Your task to perform on an android device: Clear the cart on target.com. Add "razer blade" to the cart on target.com, then select checkout. Image 0: 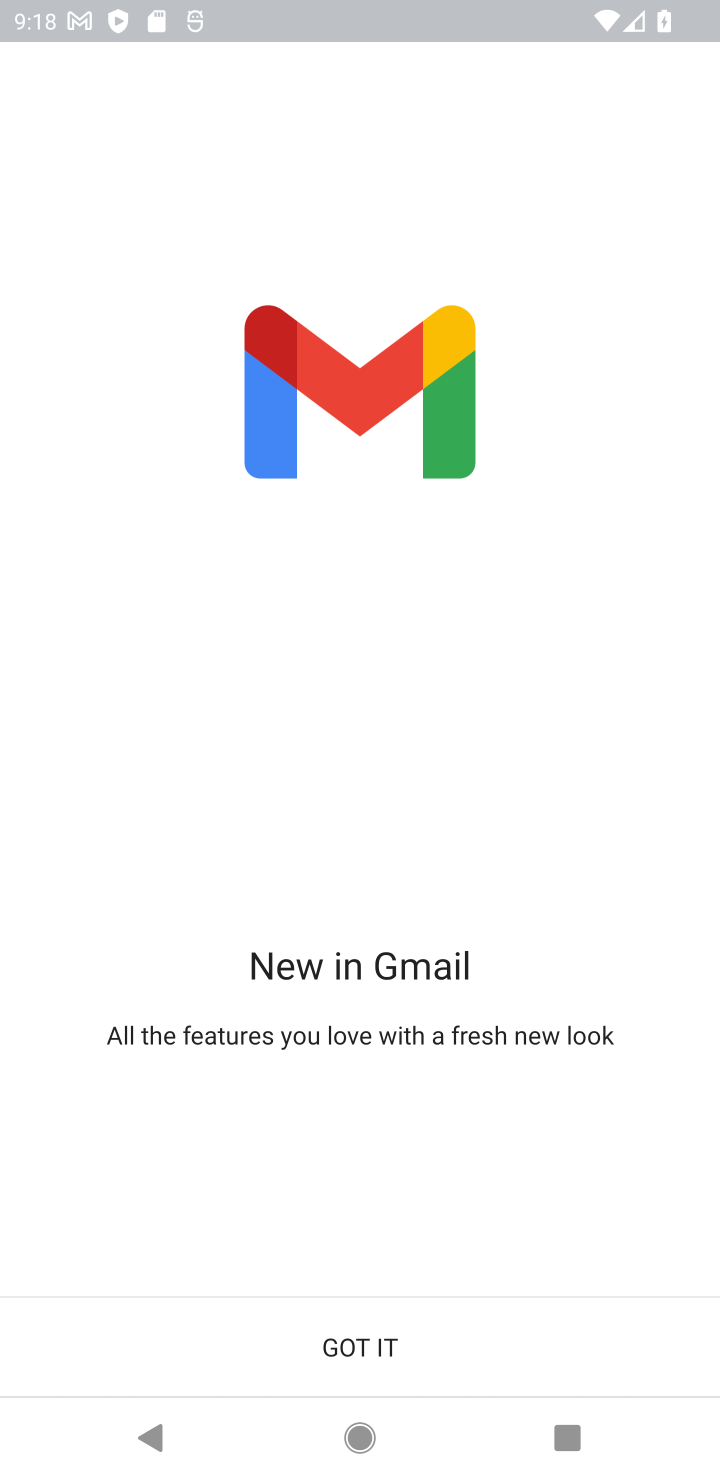
Step 0: press home button
Your task to perform on an android device: Clear the cart on target.com. Add "razer blade" to the cart on target.com, then select checkout. Image 1: 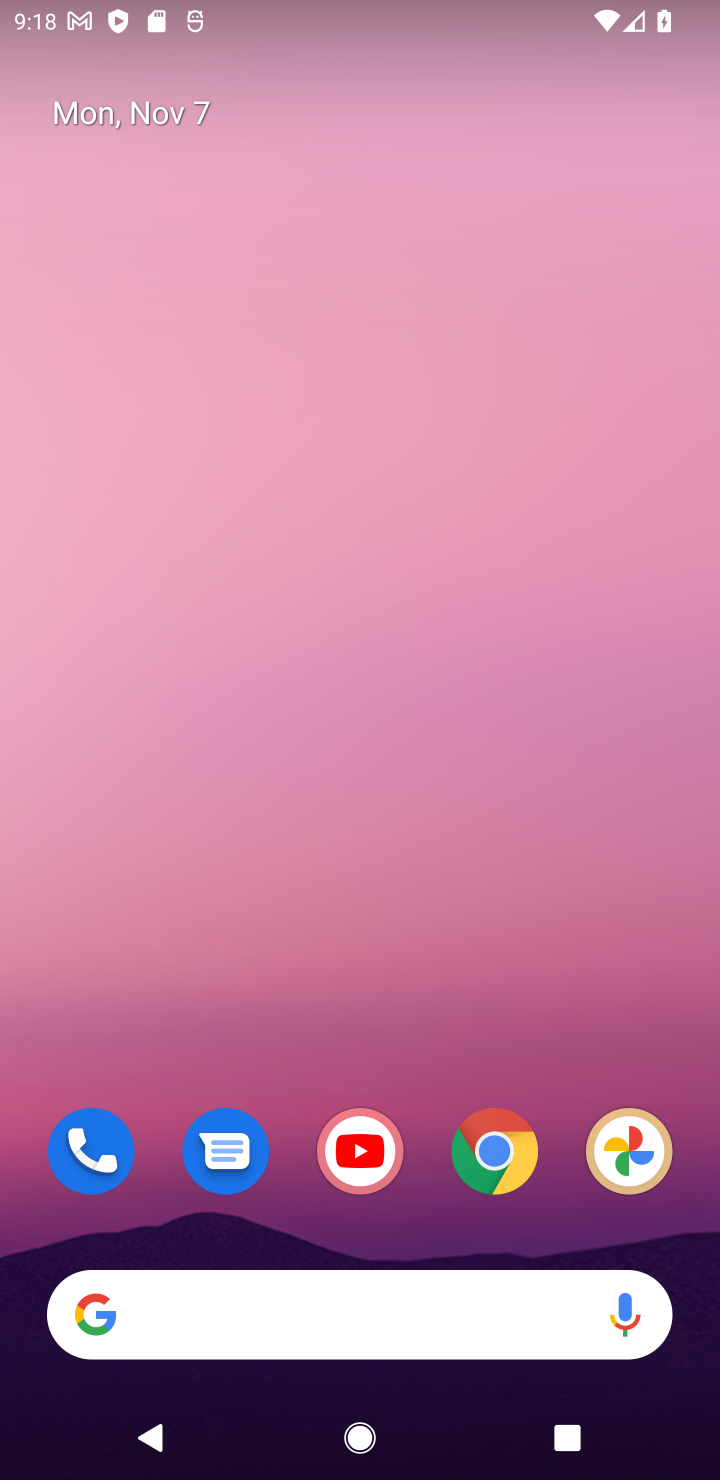
Step 1: click (497, 1158)
Your task to perform on an android device: Clear the cart on target.com. Add "razer blade" to the cart on target.com, then select checkout. Image 2: 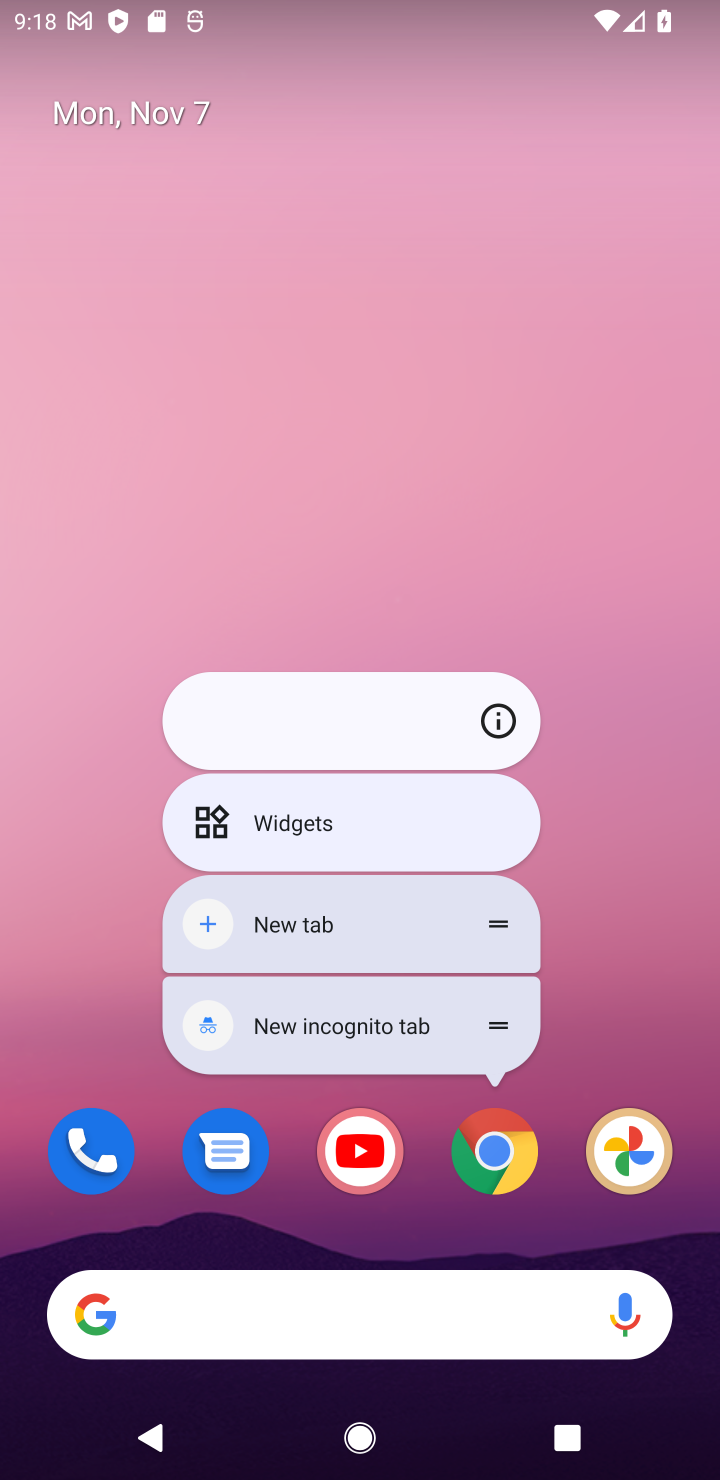
Step 2: click (499, 1154)
Your task to perform on an android device: Clear the cart on target.com. Add "razer blade" to the cart on target.com, then select checkout. Image 3: 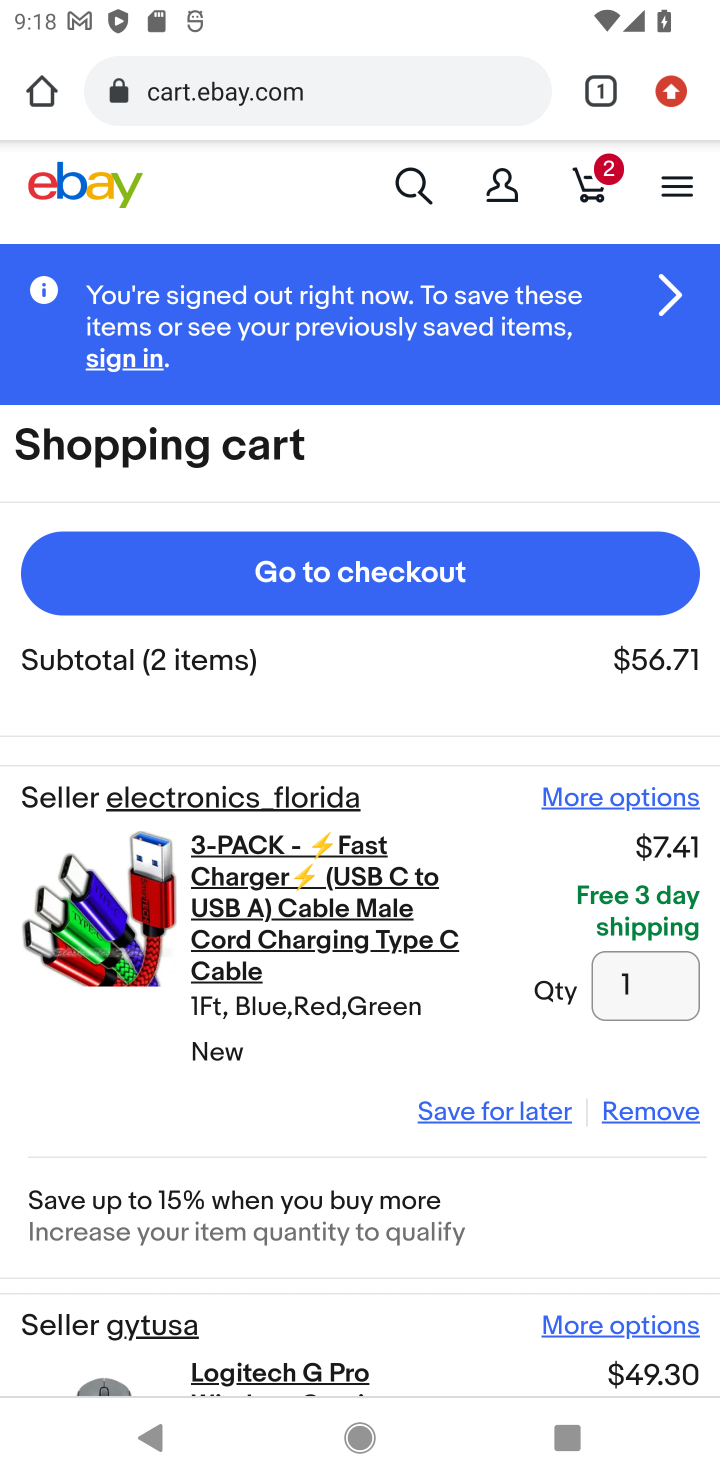
Step 3: click (363, 84)
Your task to perform on an android device: Clear the cart on target.com. Add "razer blade" to the cart on target.com, then select checkout. Image 4: 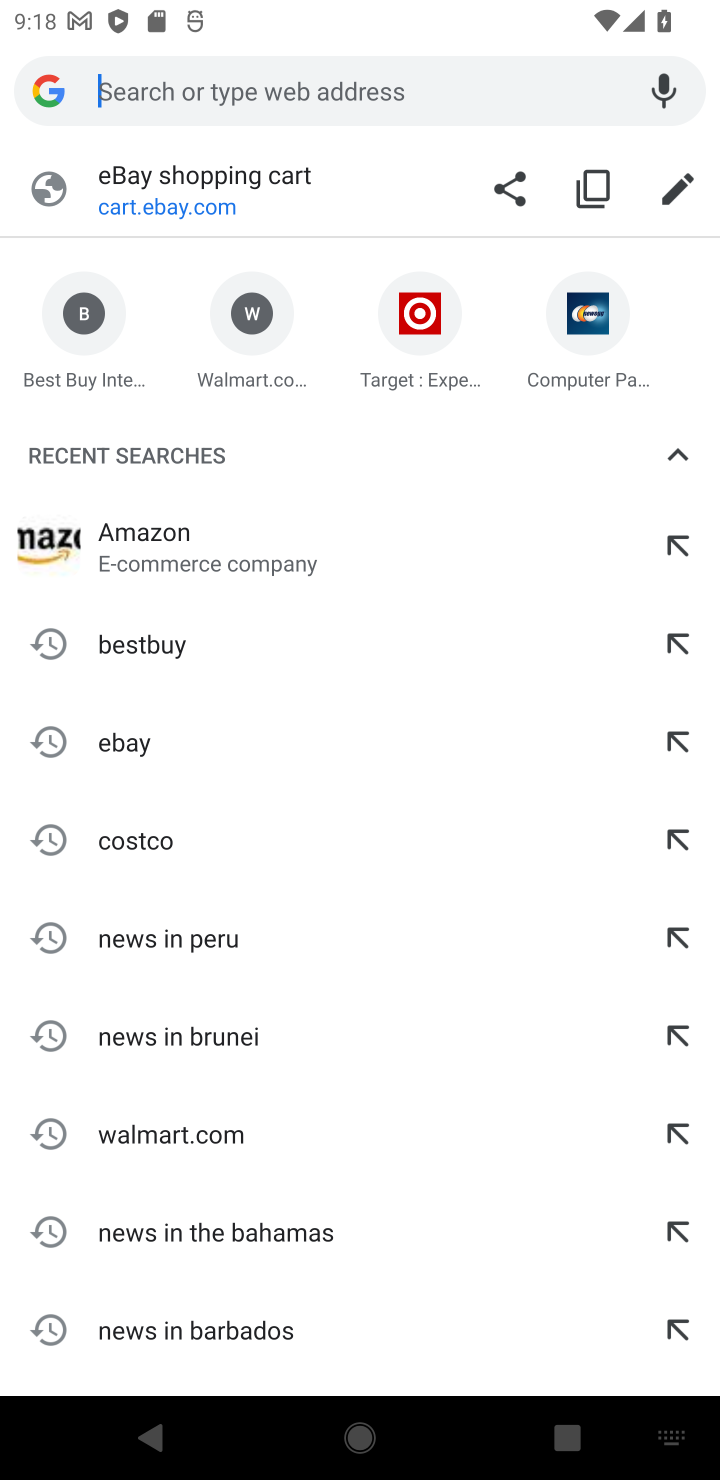
Step 4: click (411, 303)
Your task to perform on an android device: Clear the cart on target.com. Add "razer blade" to the cart on target.com, then select checkout. Image 5: 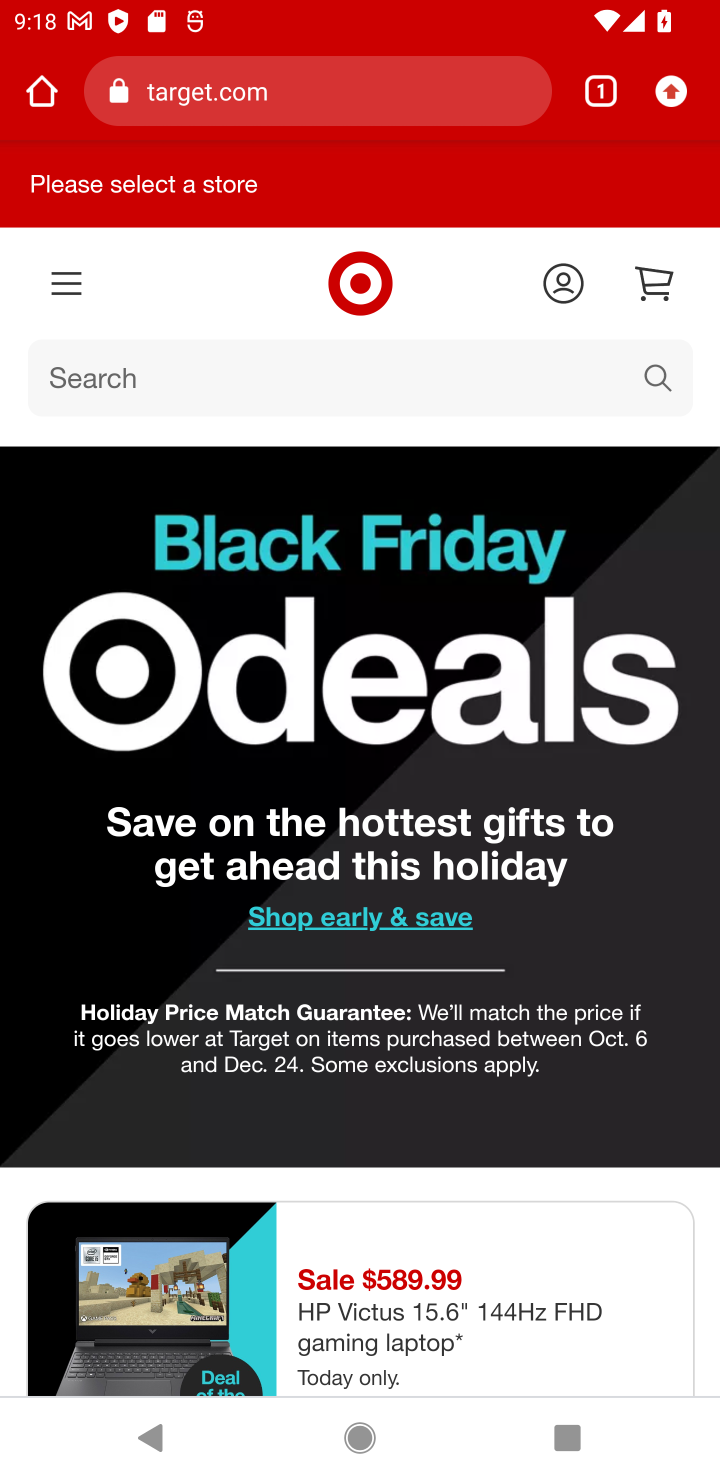
Step 5: click (65, 371)
Your task to perform on an android device: Clear the cart on target.com. Add "razer blade" to the cart on target.com, then select checkout. Image 6: 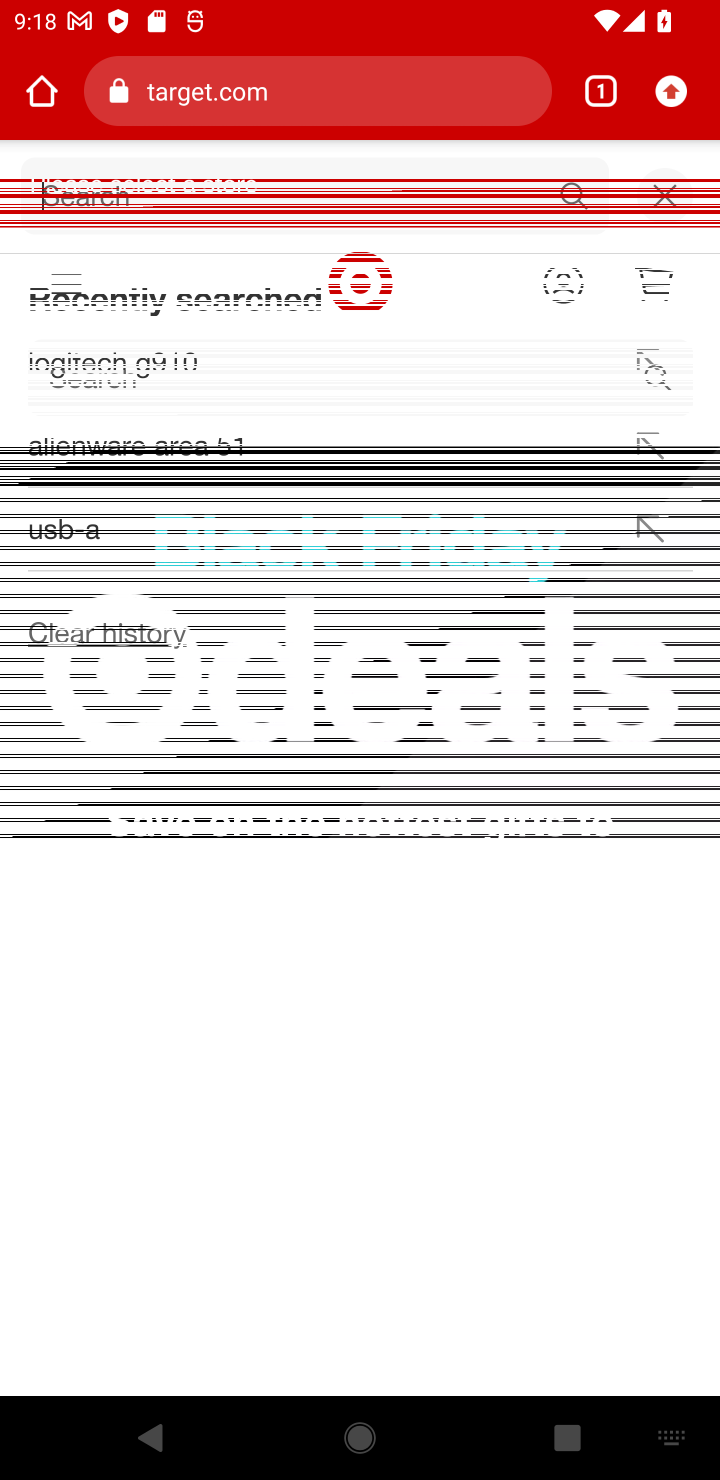
Step 6: click (49, 192)
Your task to perform on an android device: Clear the cart on target.com. Add "razer blade" to the cart on target.com, then select checkout. Image 7: 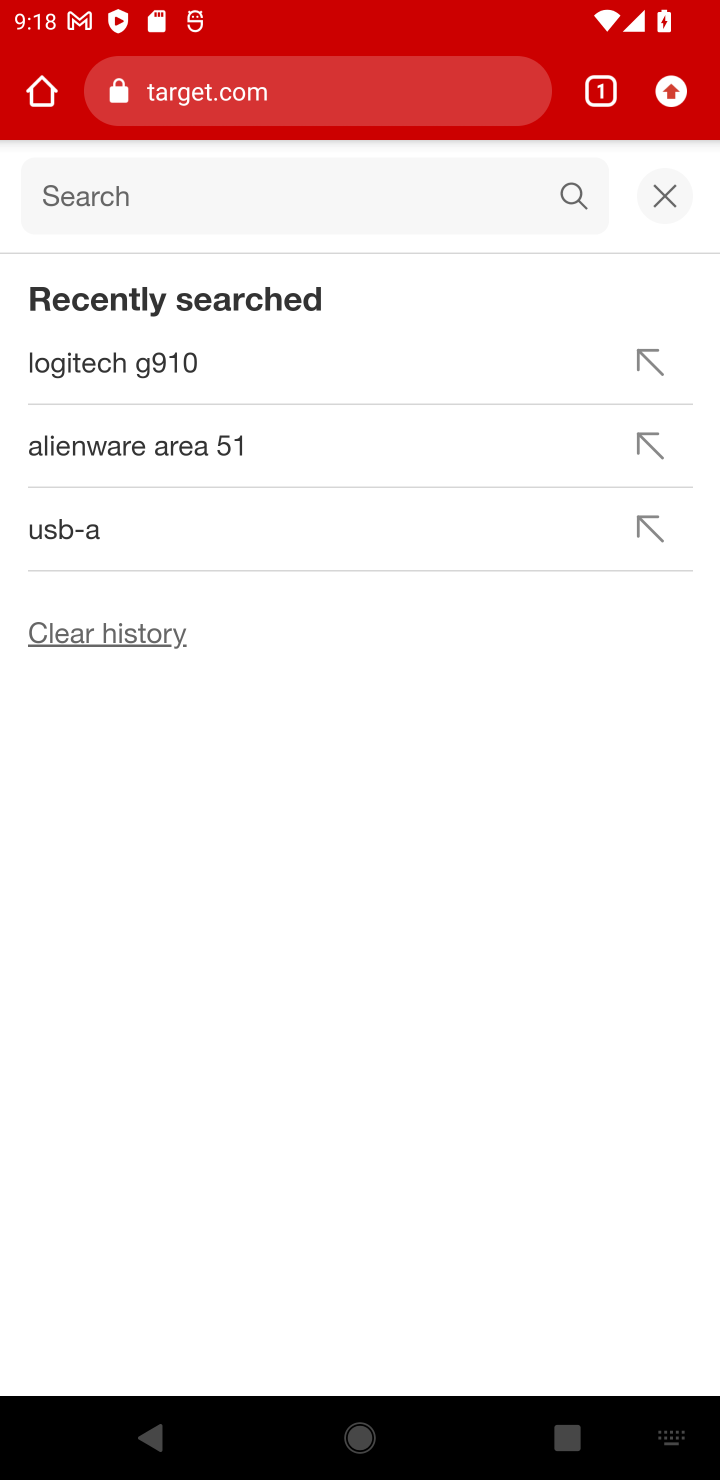
Step 7: type "razer blade"
Your task to perform on an android device: Clear the cart on target.com. Add "razer blade" to the cart on target.com, then select checkout. Image 8: 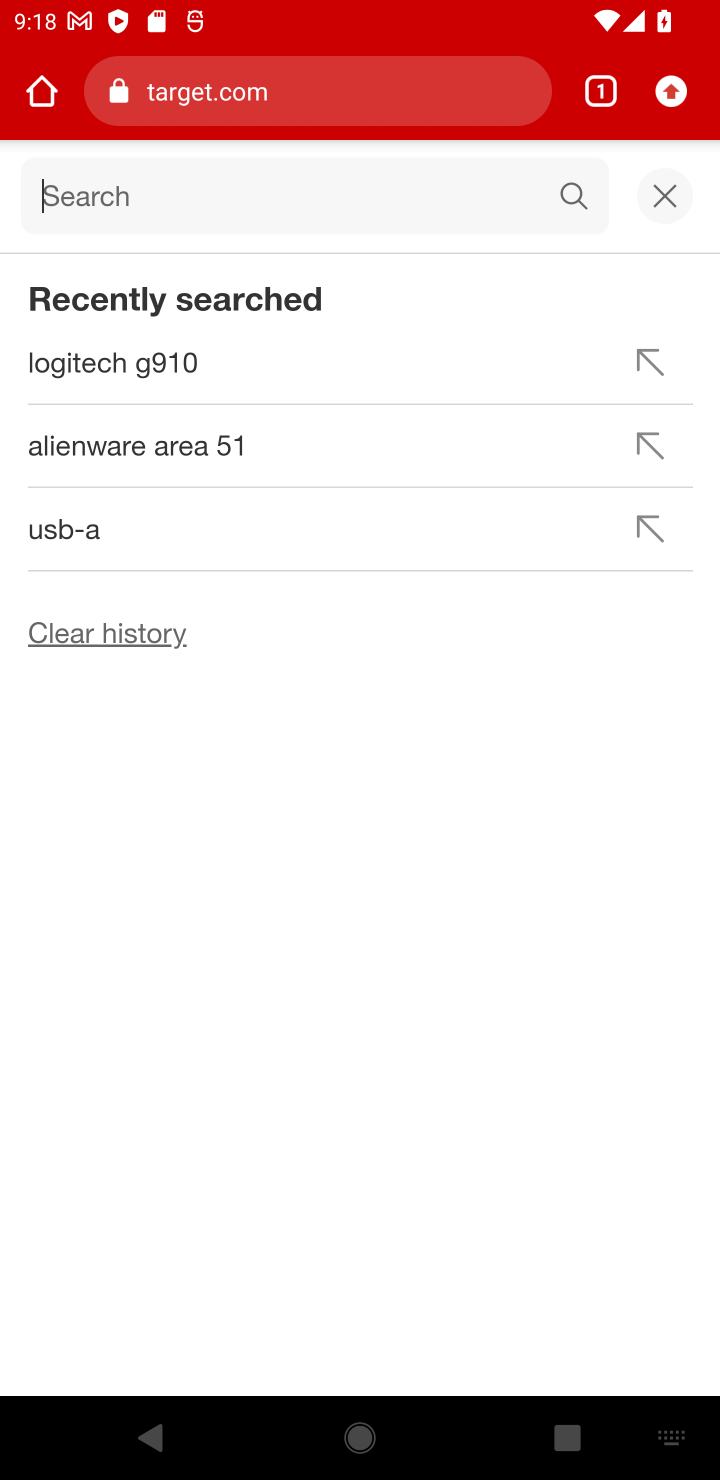
Step 8: press enter
Your task to perform on an android device: Clear the cart on target.com. Add "razer blade" to the cart on target.com, then select checkout. Image 9: 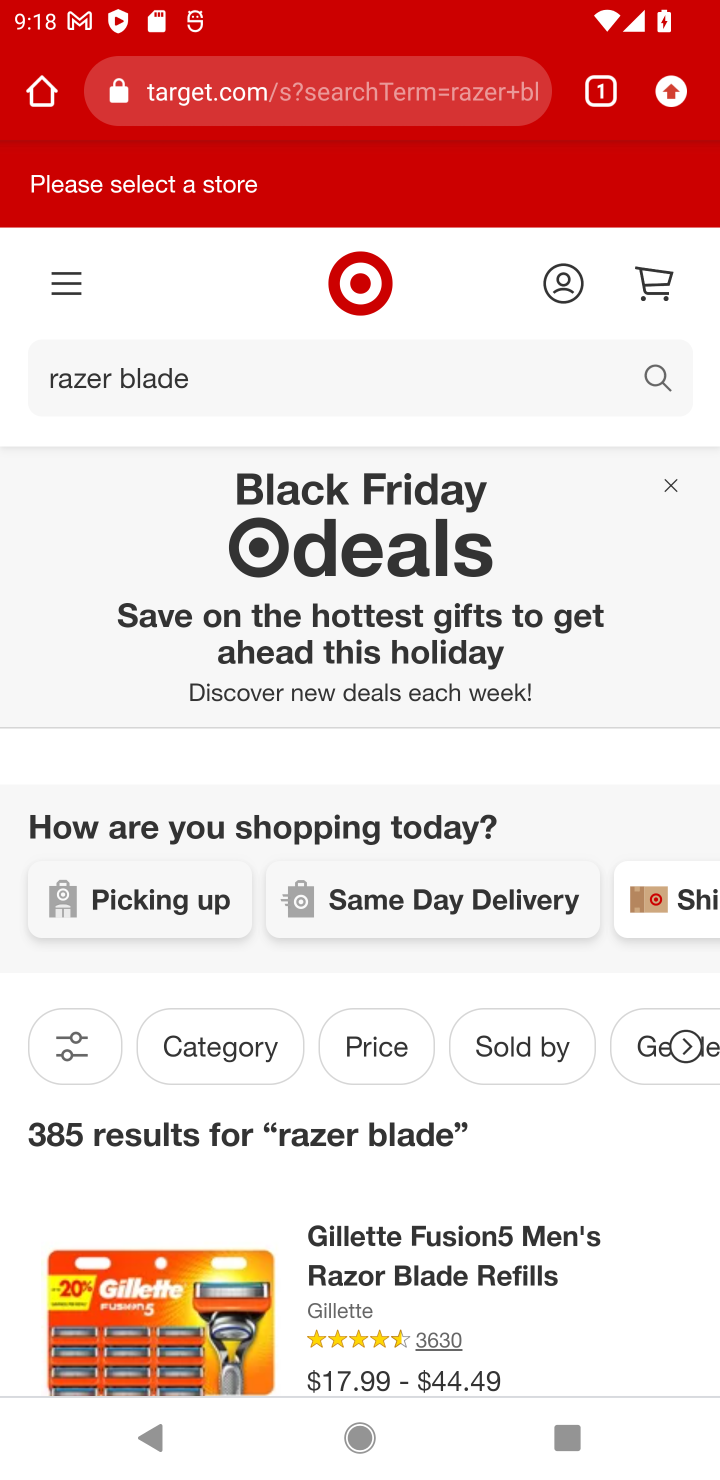
Step 9: drag from (203, 1218) to (375, 732)
Your task to perform on an android device: Clear the cart on target.com. Add "razer blade" to the cart on target.com, then select checkout. Image 10: 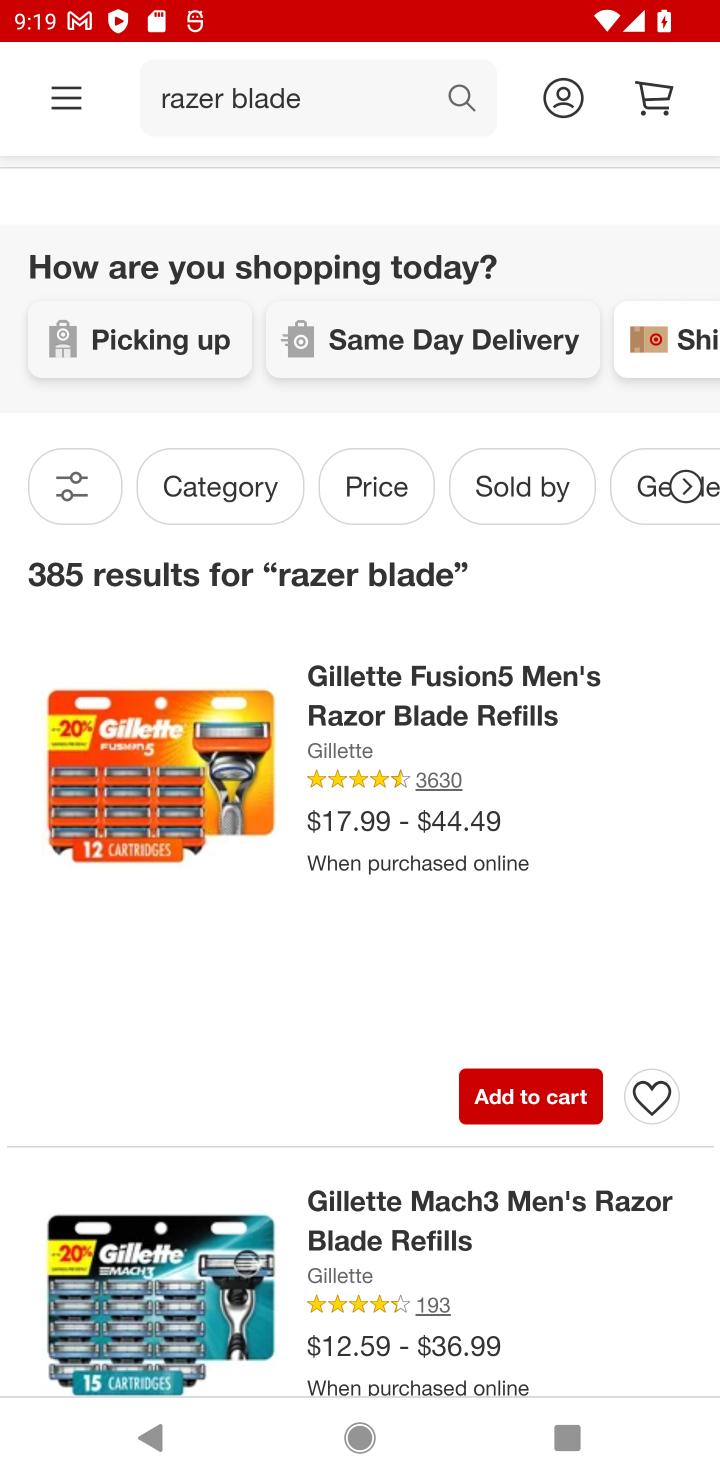
Step 10: click (546, 1094)
Your task to perform on an android device: Clear the cart on target.com. Add "razer blade" to the cart on target.com, then select checkout. Image 11: 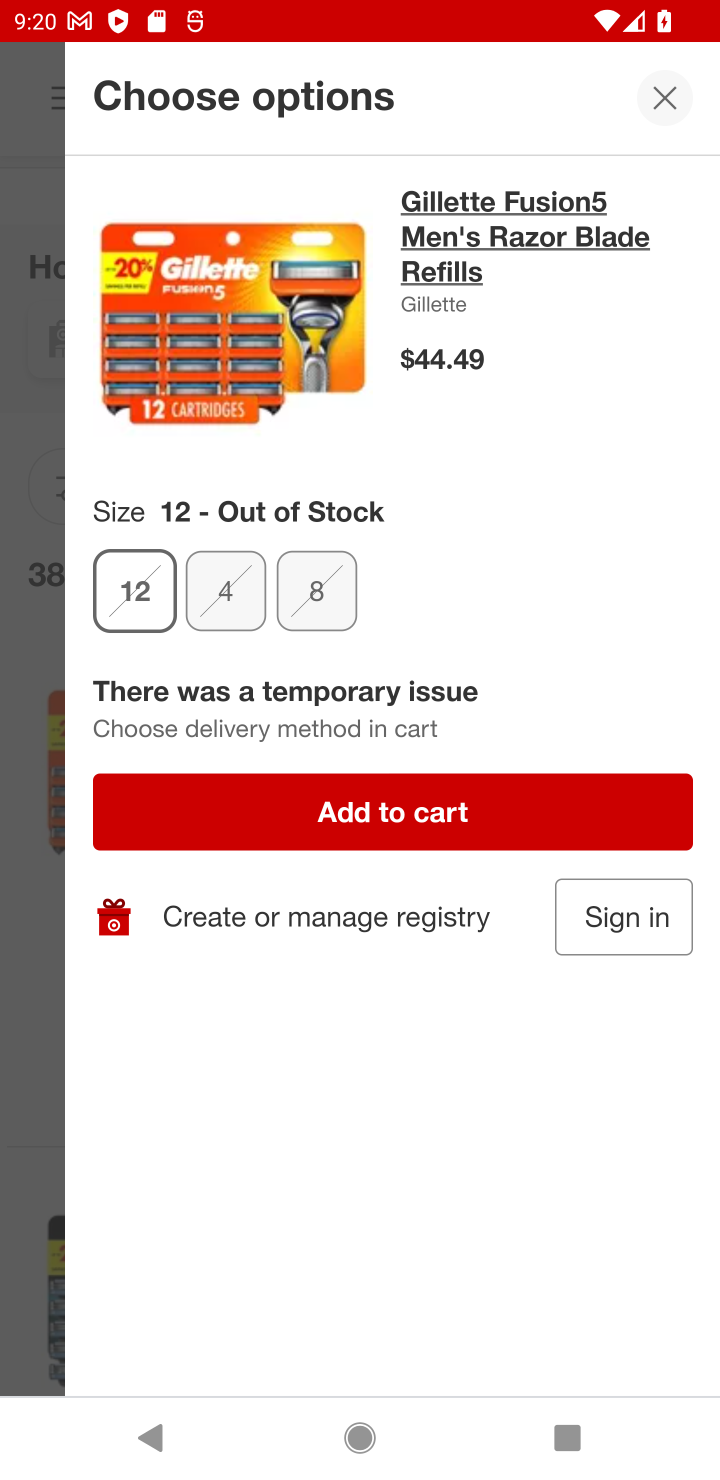
Step 11: click (416, 818)
Your task to perform on an android device: Clear the cart on target.com. Add "razer blade" to the cart on target.com, then select checkout. Image 12: 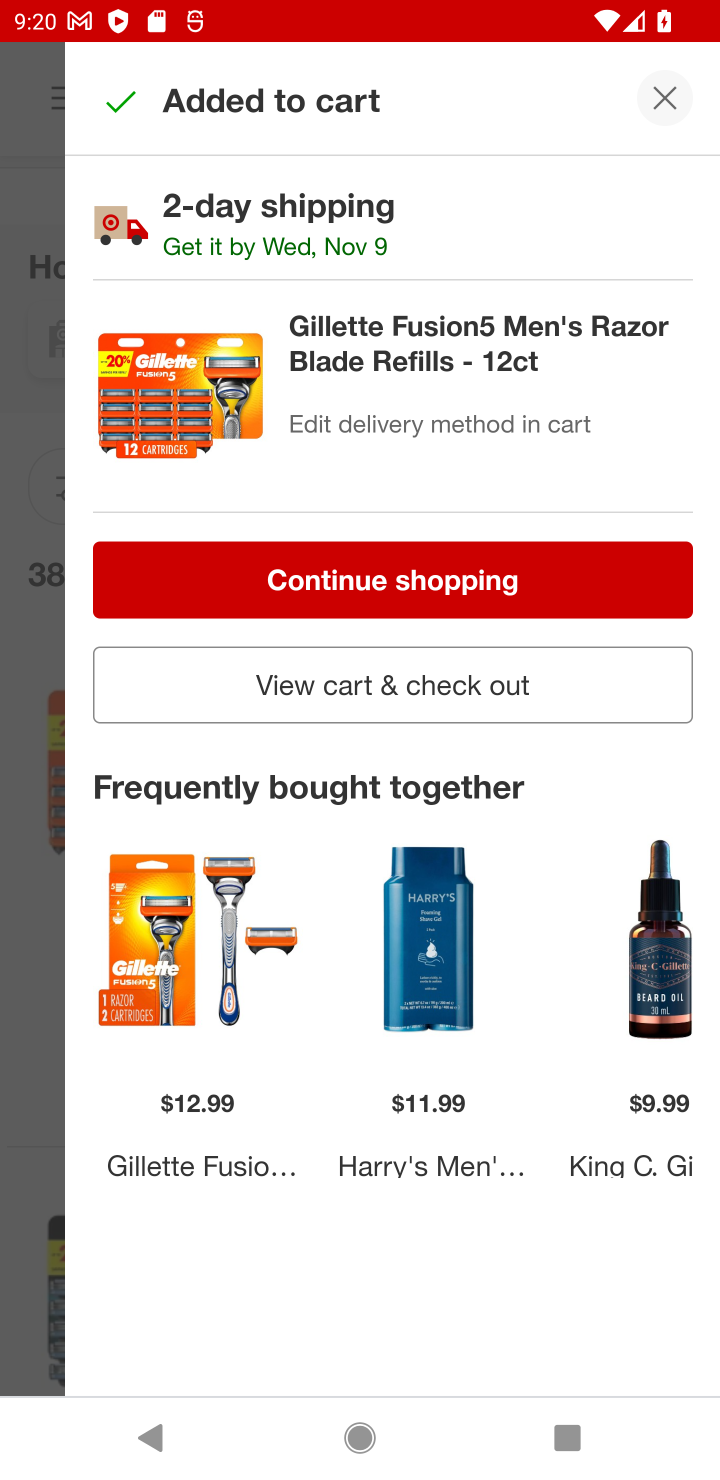
Step 12: click (668, 89)
Your task to perform on an android device: Clear the cart on target.com. Add "razer blade" to the cart on target.com, then select checkout. Image 13: 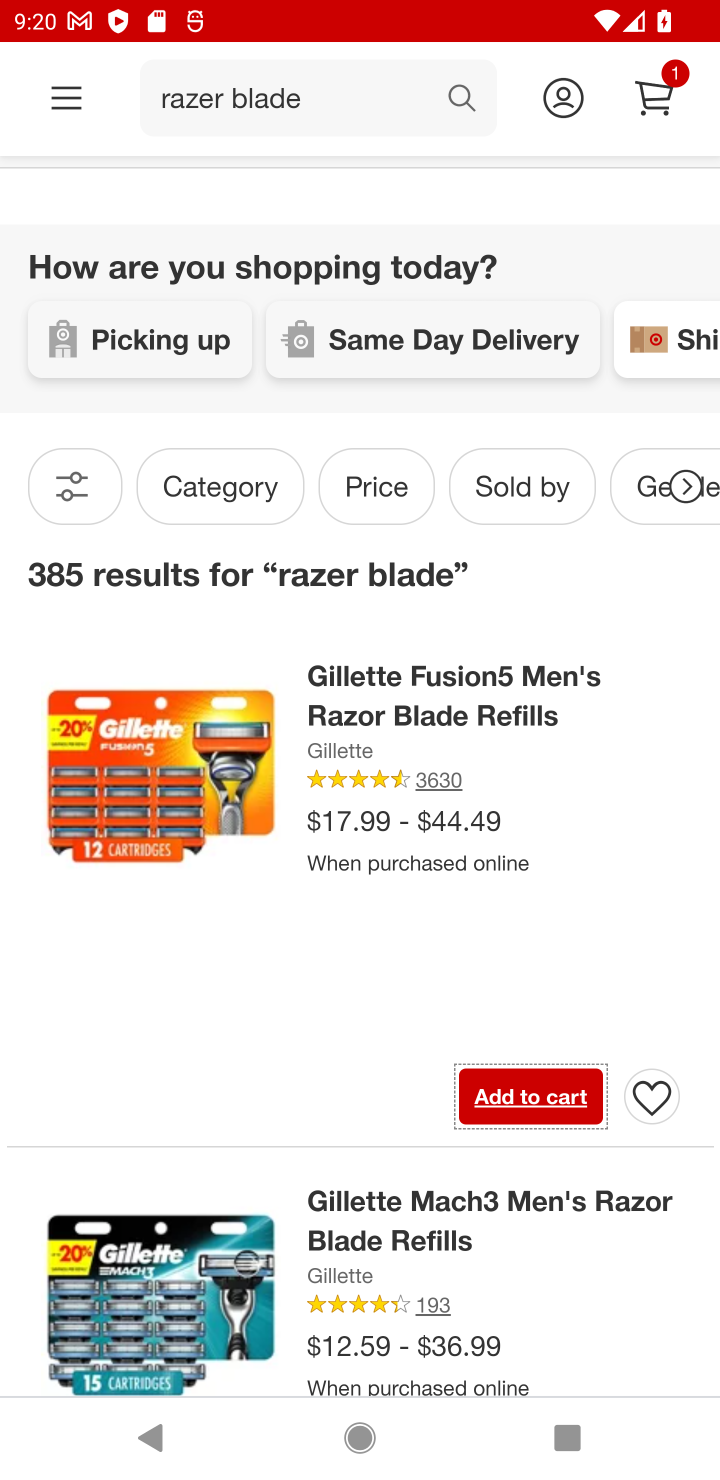
Step 13: click (645, 91)
Your task to perform on an android device: Clear the cart on target.com. Add "razer blade" to the cart on target.com, then select checkout. Image 14: 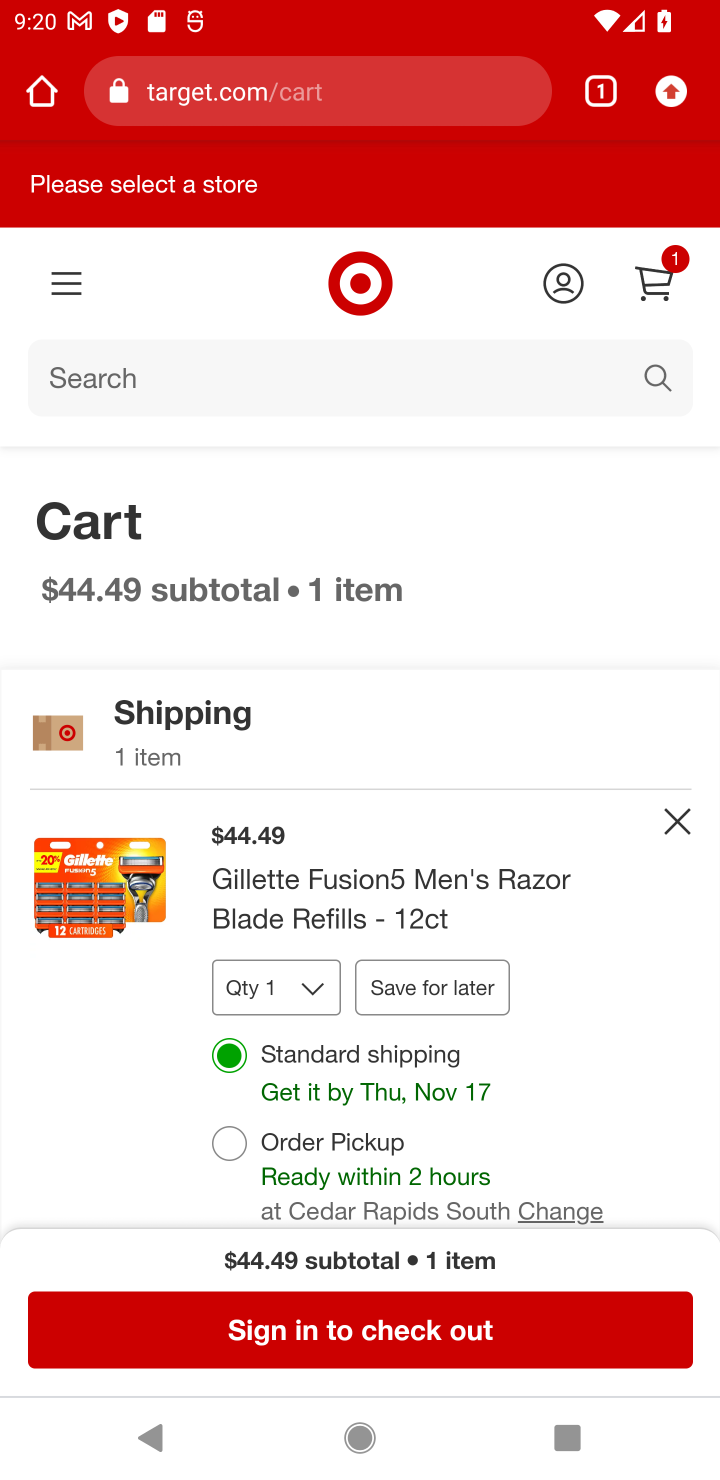
Step 14: task complete